Your task to perform on an android device: Open the phone app and click the voicemail tab. Image 0: 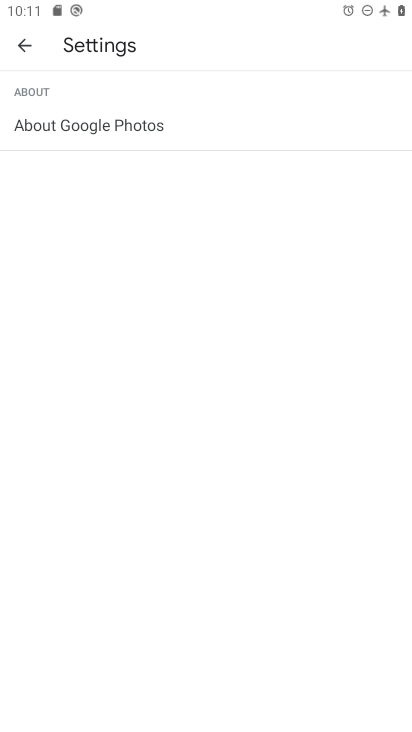
Step 0: press home button
Your task to perform on an android device: Open the phone app and click the voicemail tab. Image 1: 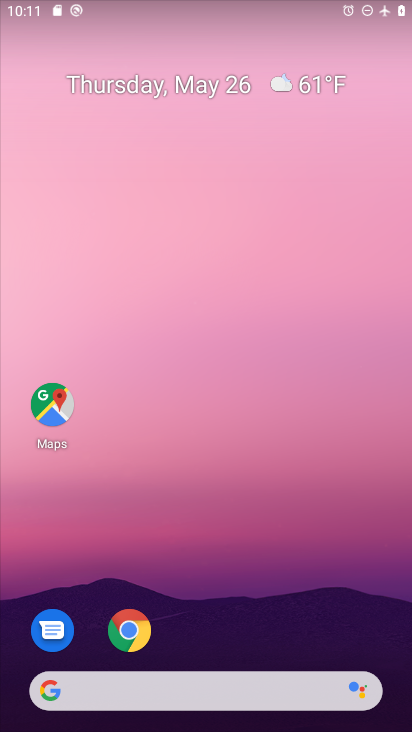
Step 1: drag from (179, 663) to (178, 121)
Your task to perform on an android device: Open the phone app and click the voicemail tab. Image 2: 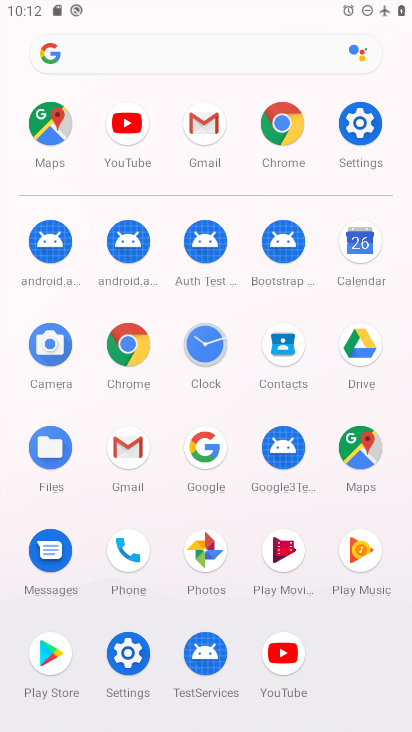
Step 2: click (135, 552)
Your task to perform on an android device: Open the phone app and click the voicemail tab. Image 3: 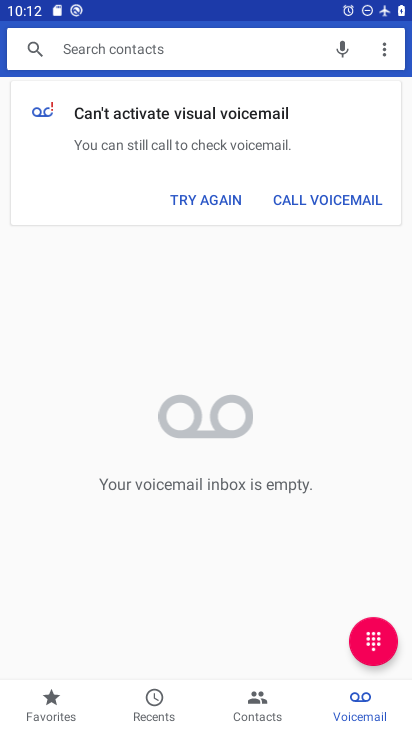
Step 3: click (367, 718)
Your task to perform on an android device: Open the phone app and click the voicemail tab. Image 4: 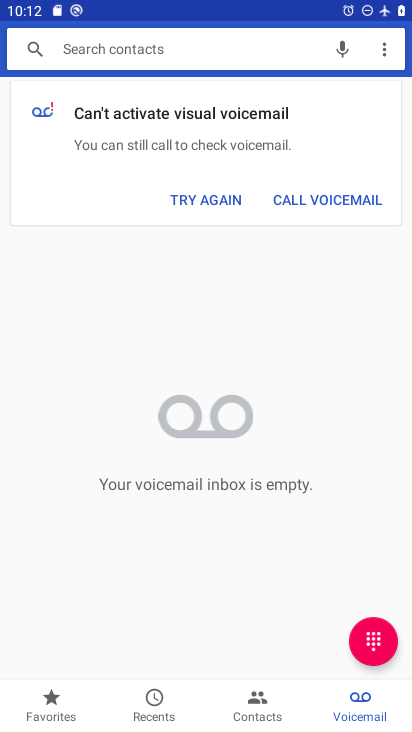
Step 4: task complete